Your task to perform on an android device: Open location settings Image 0: 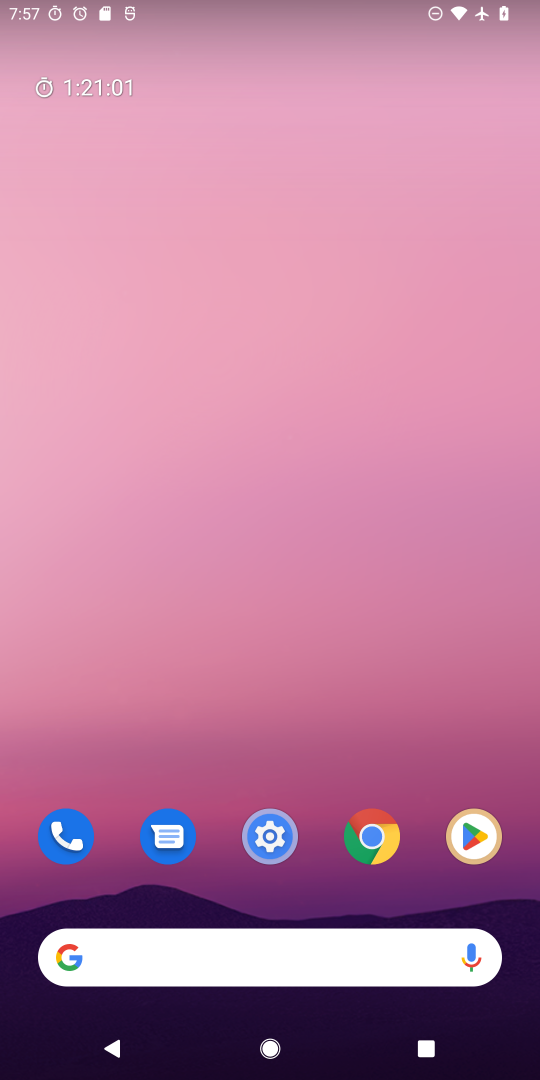
Step 0: drag from (340, 764) to (325, 206)
Your task to perform on an android device: Open location settings Image 1: 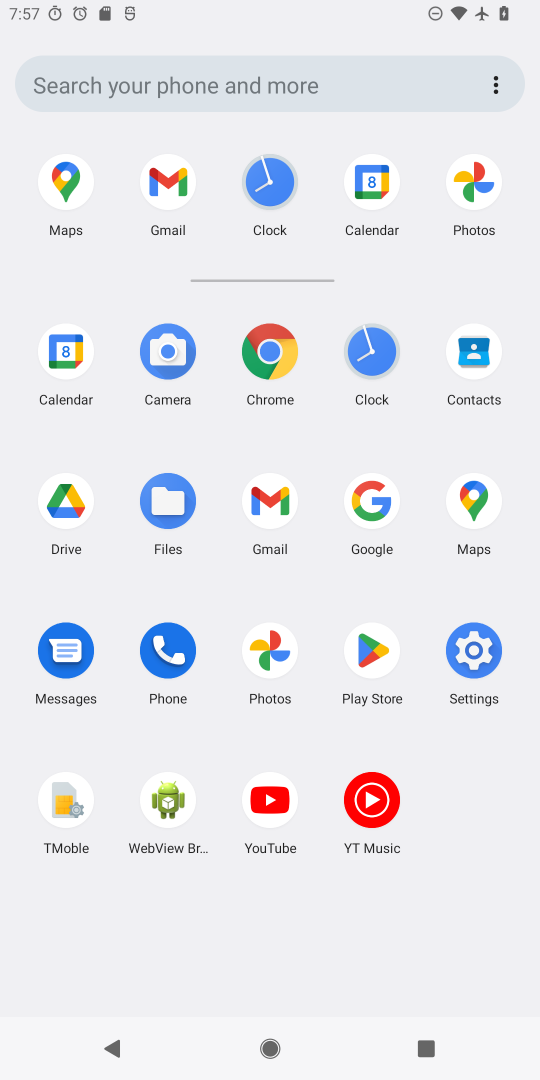
Step 1: click (496, 676)
Your task to perform on an android device: Open location settings Image 2: 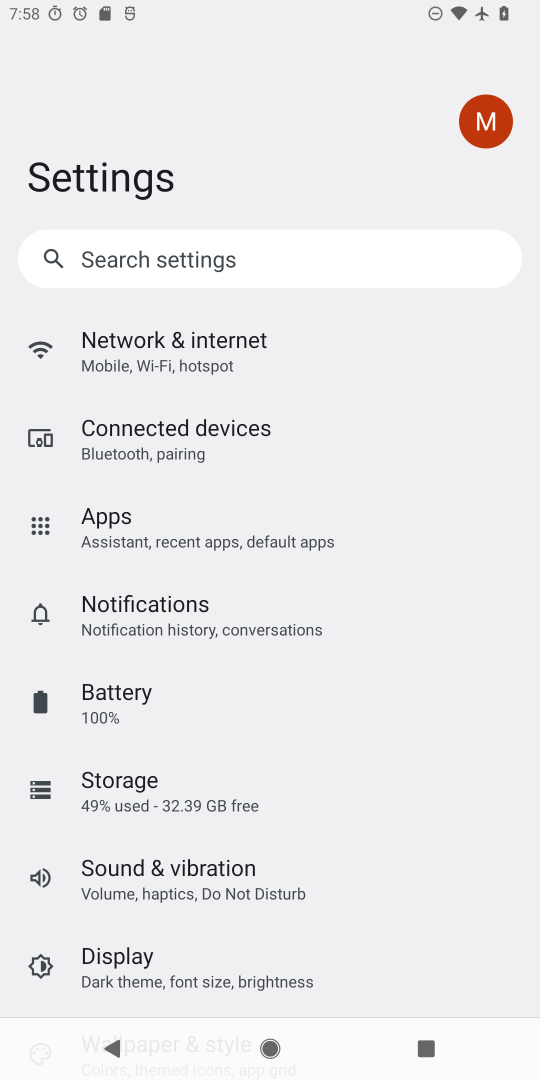
Step 2: drag from (188, 893) to (275, 426)
Your task to perform on an android device: Open location settings Image 3: 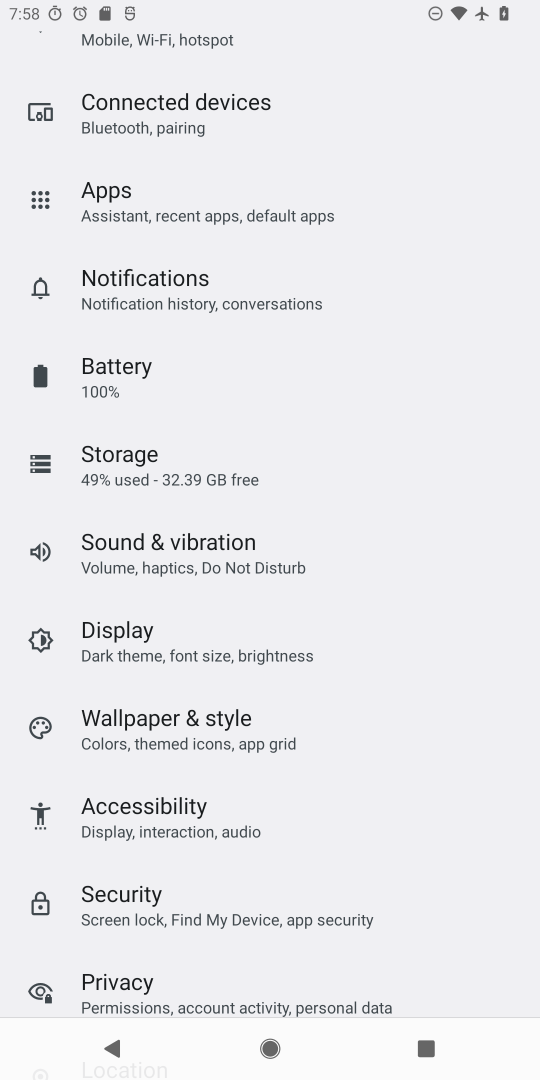
Step 3: drag from (172, 683) to (228, 182)
Your task to perform on an android device: Open location settings Image 4: 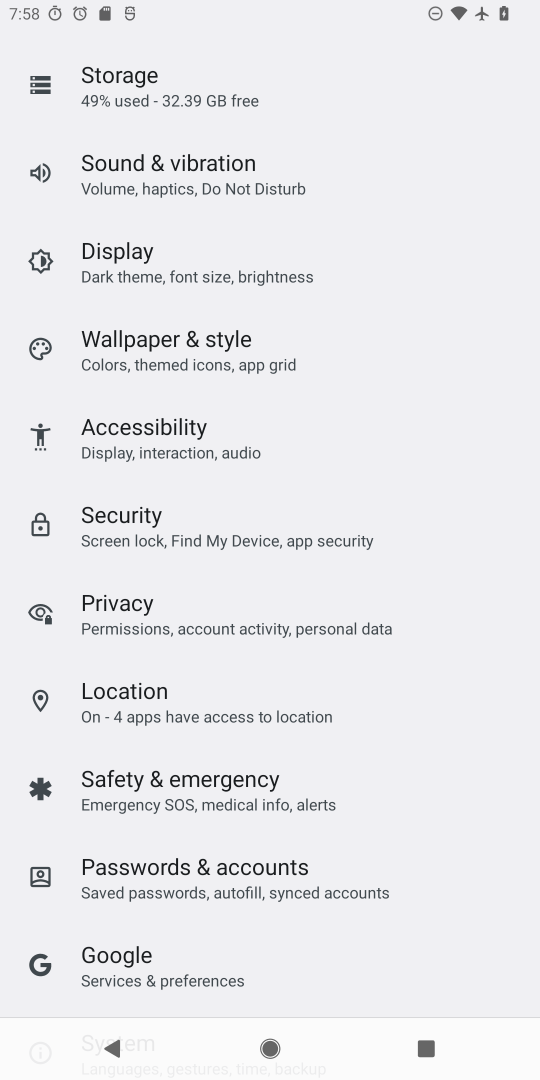
Step 4: click (173, 711)
Your task to perform on an android device: Open location settings Image 5: 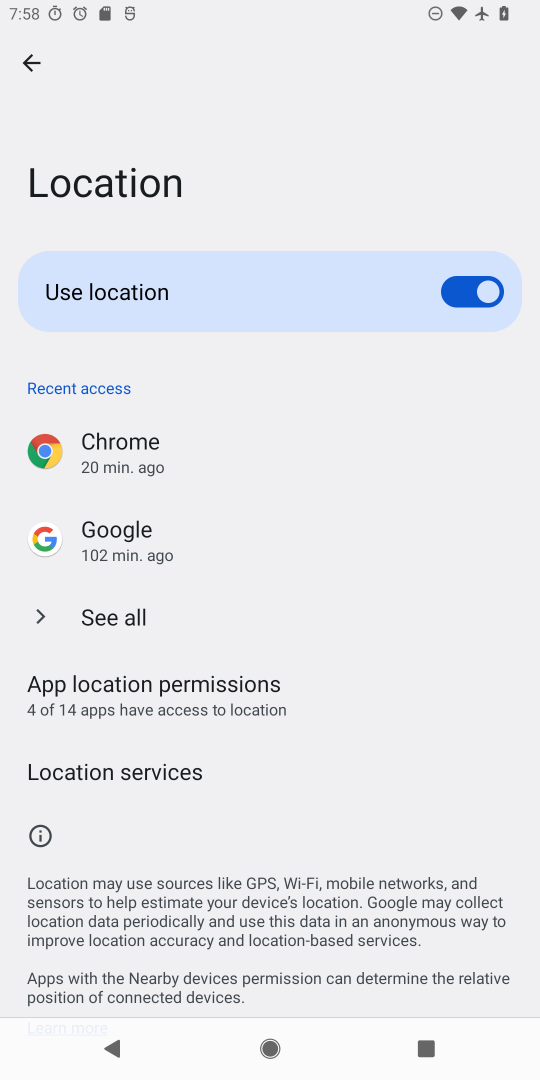
Step 5: task complete